Your task to perform on an android device: toggle notifications settings in the gmail app Image 0: 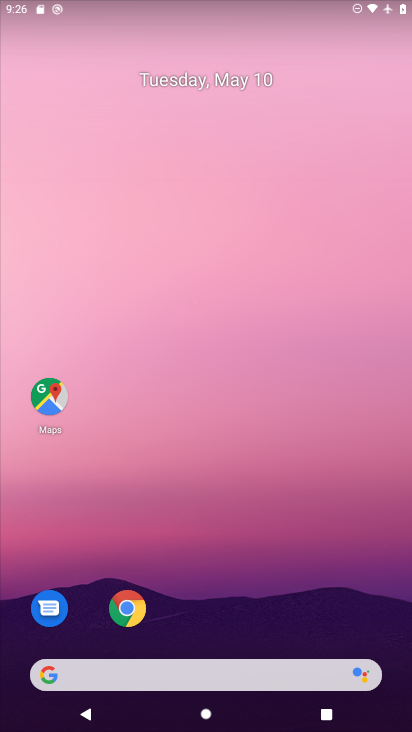
Step 0: drag from (215, 604) to (252, 304)
Your task to perform on an android device: toggle notifications settings in the gmail app Image 1: 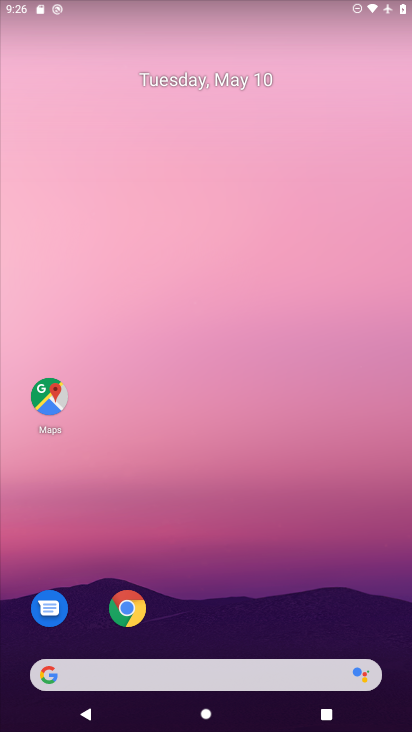
Step 1: drag from (228, 615) to (268, 273)
Your task to perform on an android device: toggle notifications settings in the gmail app Image 2: 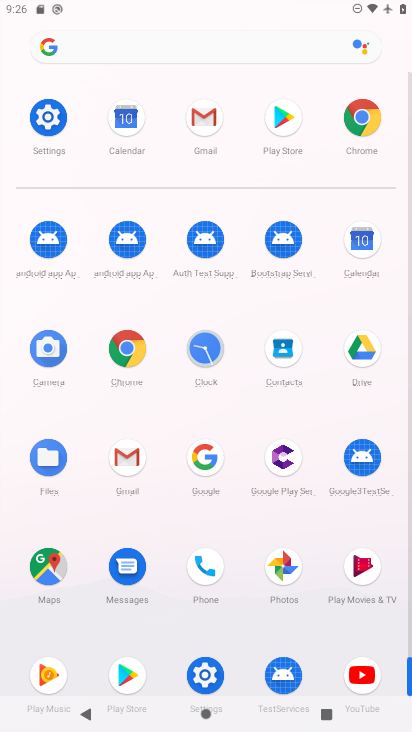
Step 2: click (198, 111)
Your task to perform on an android device: toggle notifications settings in the gmail app Image 3: 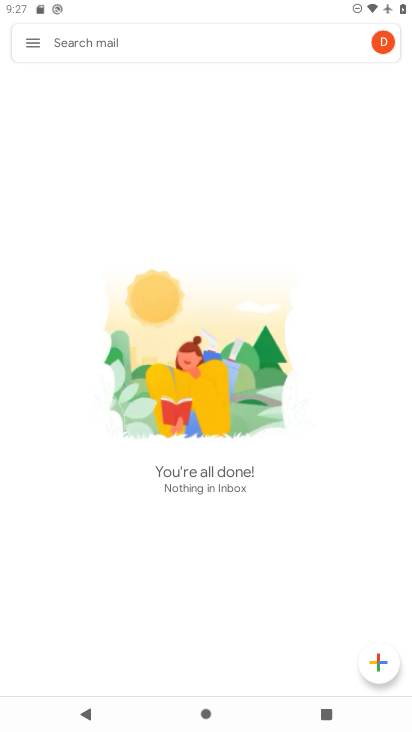
Step 3: click (31, 34)
Your task to perform on an android device: toggle notifications settings in the gmail app Image 4: 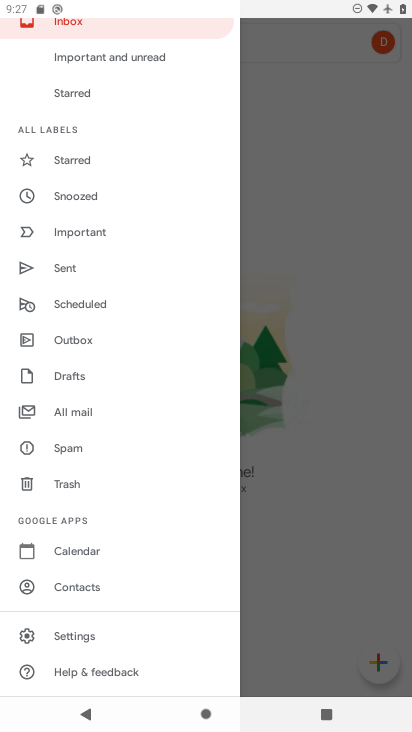
Step 4: click (90, 636)
Your task to perform on an android device: toggle notifications settings in the gmail app Image 5: 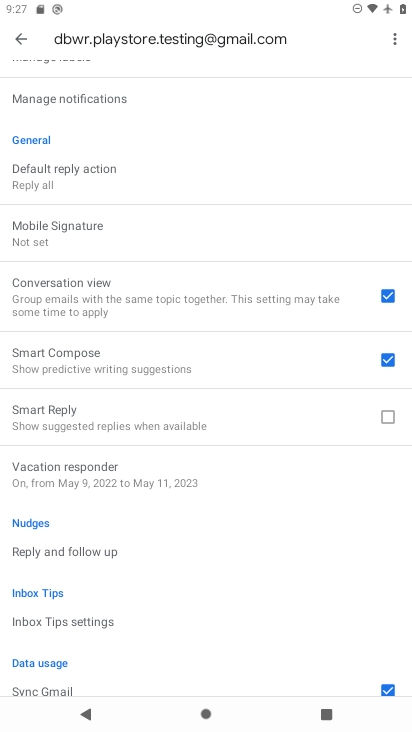
Step 5: drag from (86, 159) to (87, 465)
Your task to perform on an android device: toggle notifications settings in the gmail app Image 6: 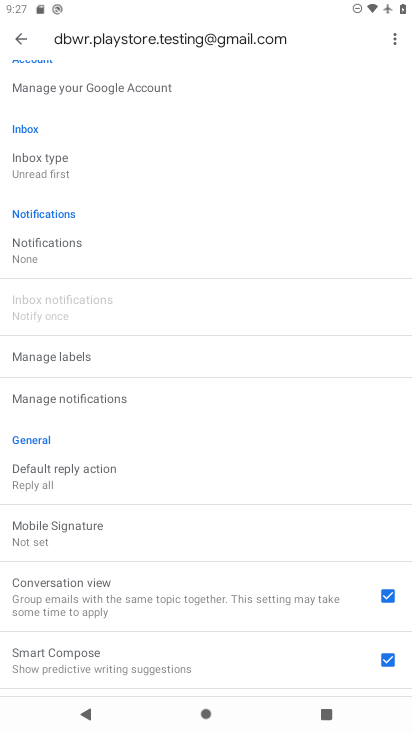
Step 6: click (71, 249)
Your task to perform on an android device: toggle notifications settings in the gmail app Image 7: 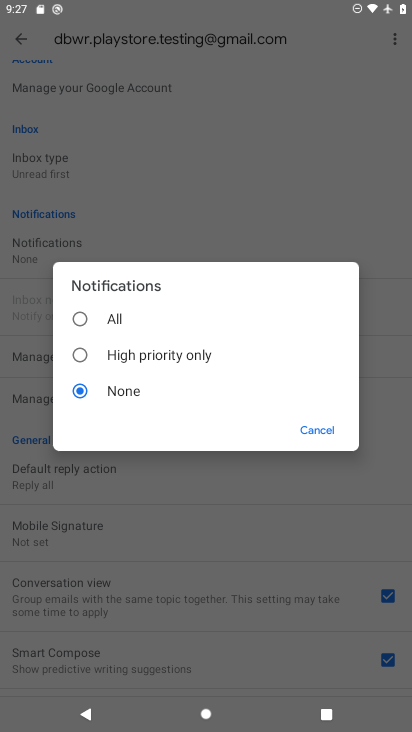
Step 7: click (107, 317)
Your task to perform on an android device: toggle notifications settings in the gmail app Image 8: 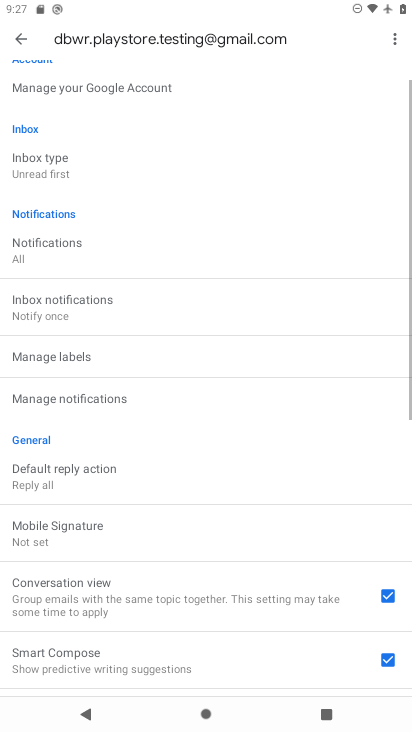
Step 8: task complete